Your task to perform on an android device: Go to wifi settings Image 0: 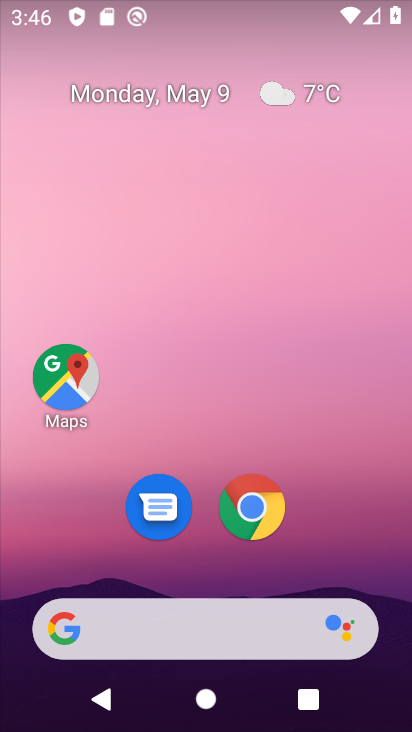
Step 0: drag from (342, 665) to (245, 40)
Your task to perform on an android device: Go to wifi settings Image 1: 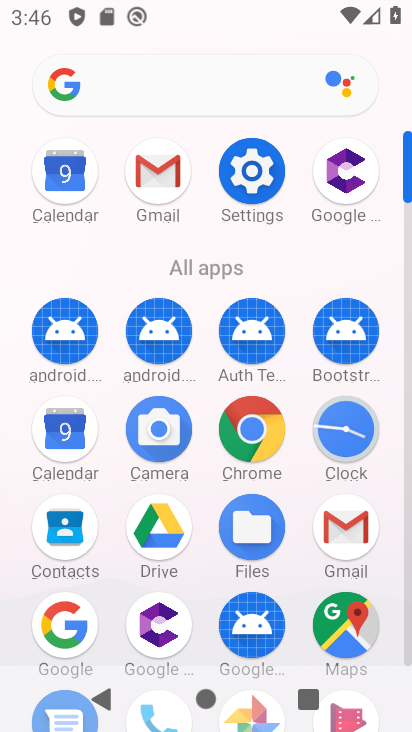
Step 1: click (246, 179)
Your task to perform on an android device: Go to wifi settings Image 2: 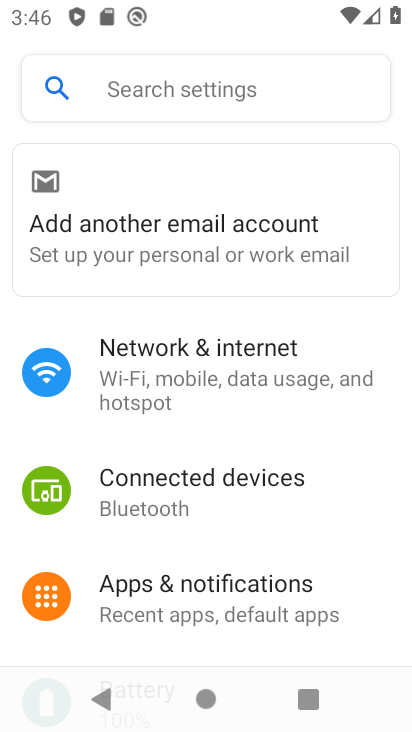
Step 2: click (192, 368)
Your task to perform on an android device: Go to wifi settings Image 3: 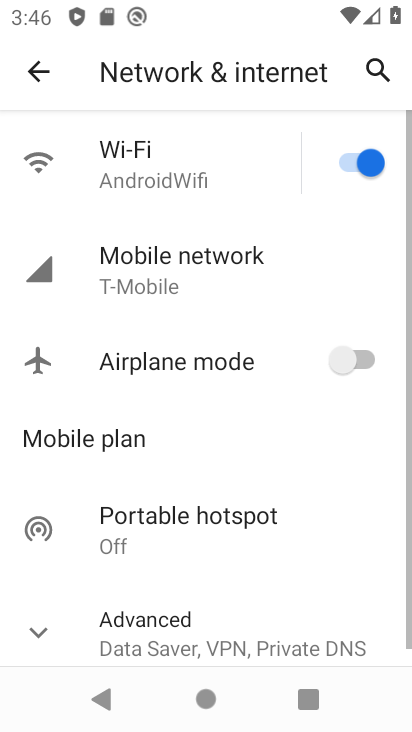
Step 3: click (139, 129)
Your task to perform on an android device: Go to wifi settings Image 4: 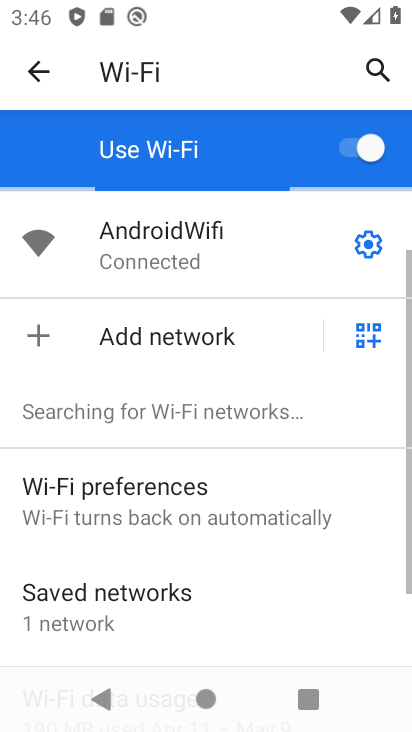
Step 4: task complete